Your task to perform on an android device: Go to Maps Image 0: 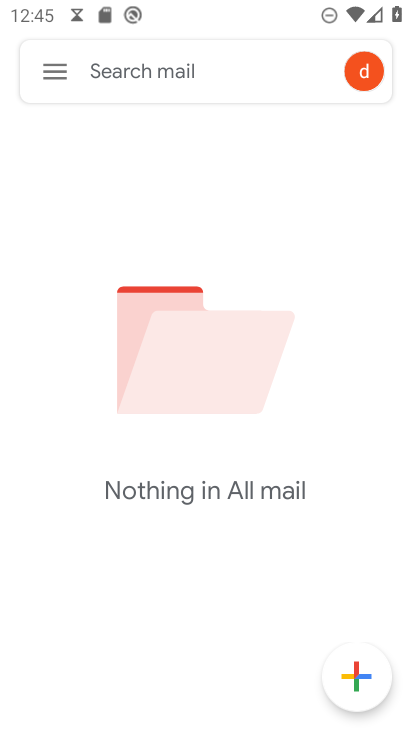
Step 0: press home button
Your task to perform on an android device: Go to Maps Image 1: 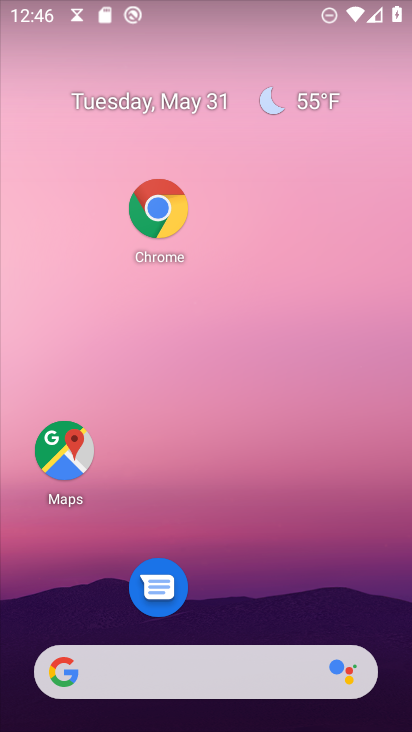
Step 1: click (84, 473)
Your task to perform on an android device: Go to Maps Image 2: 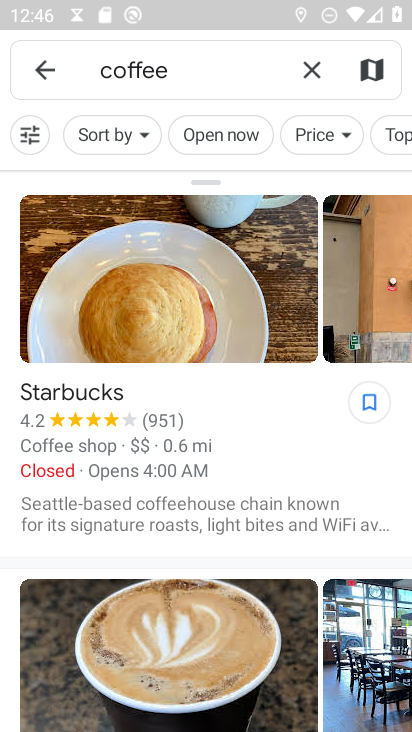
Step 2: task complete